Your task to perform on an android device: Open the phone app and click the voicemail tab. Image 0: 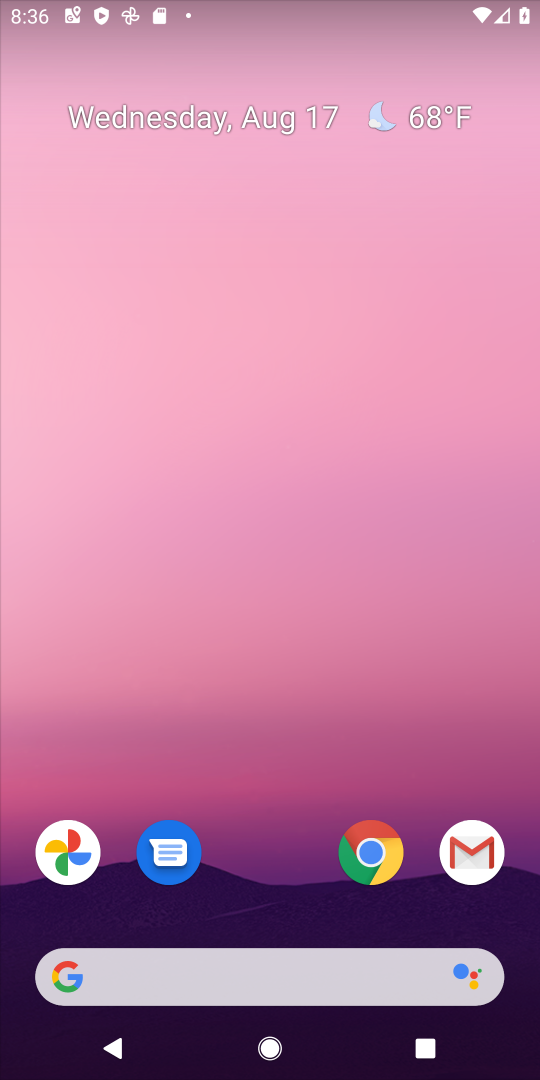
Step 0: drag from (252, 920) to (121, 179)
Your task to perform on an android device: Open the phone app and click the voicemail tab. Image 1: 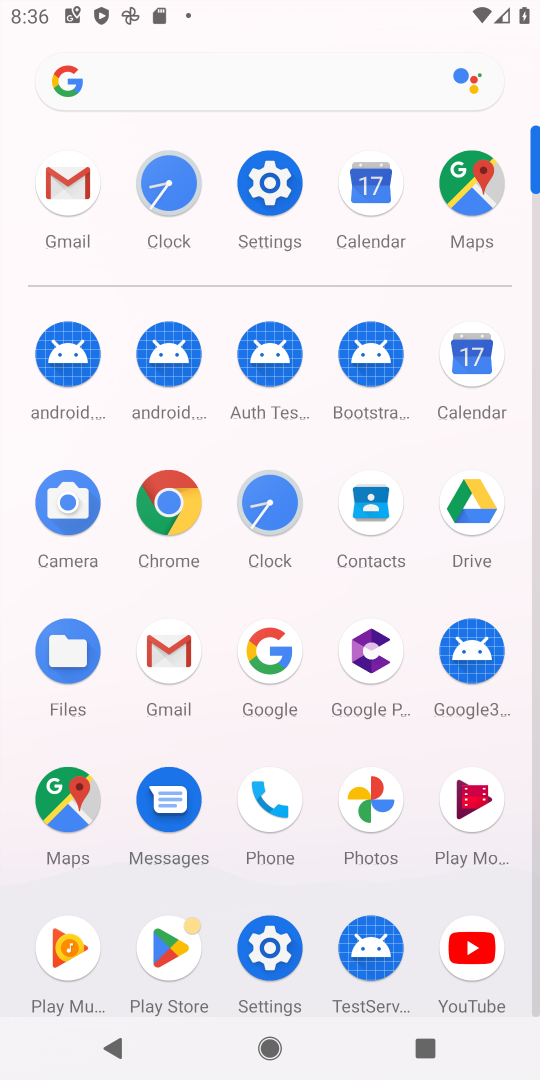
Step 1: click (274, 796)
Your task to perform on an android device: Open the phone app and click the voicemail tab. Image 2: 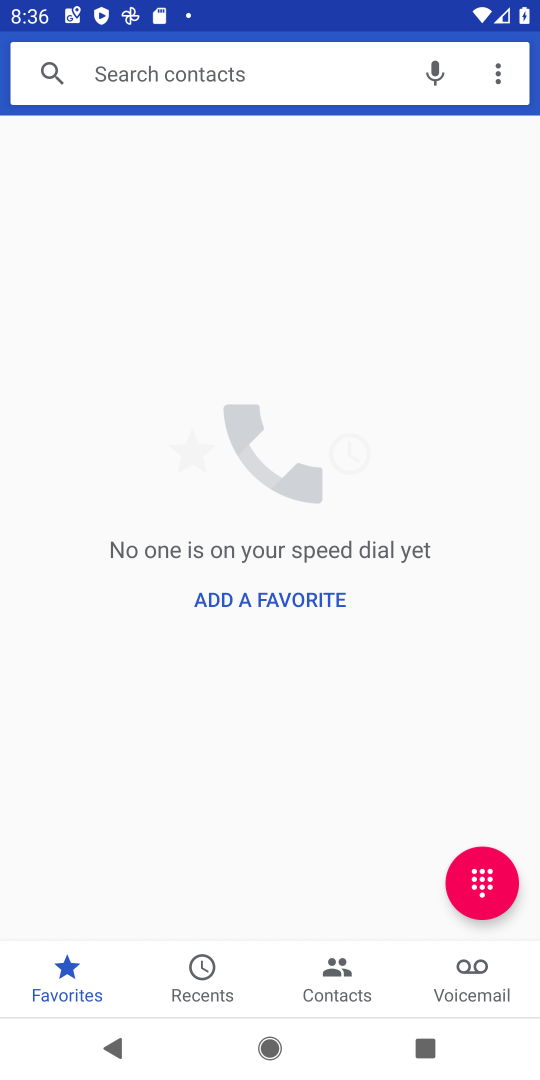
Step 2: click (475, 977)
Your task to perform on an android device: Open the phone app and click the voicemail tab. Image 3: 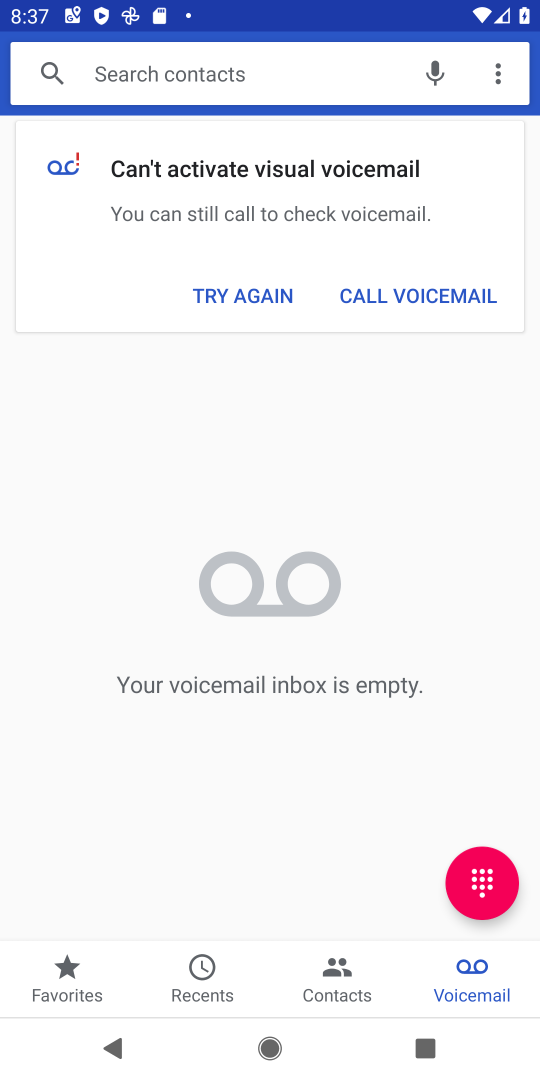
Step 3: task complete